Your task to perform on an android device: see tabs open on other devices in the chrome app Image 0: 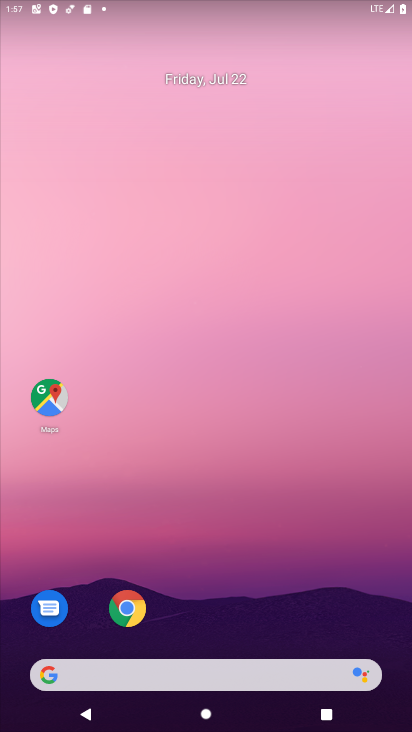
Step 0: click (126, 603)
Your task to perform on an android device: see tabs open on other devices in the chrome app Image 1: 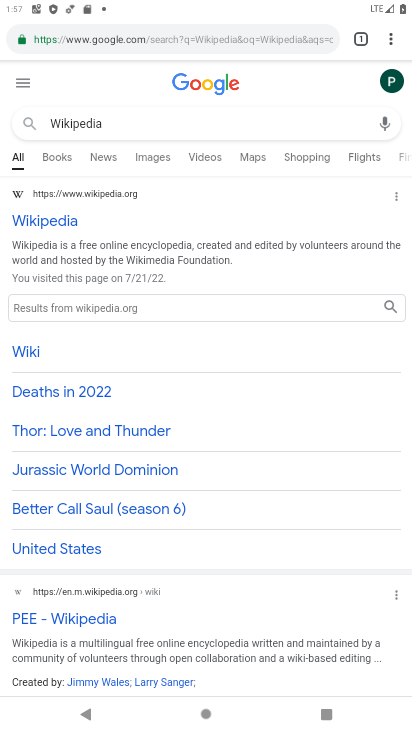
Step 1: click (386, 35)
Your task to perform on an android device: see tabs open on other devices in the chrome app Image 2: 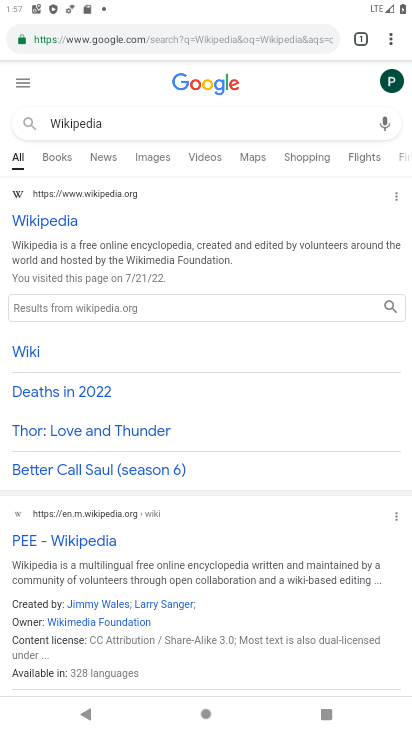
Step 2: click (387, 36)
Your task to perform on an android device: see tabs open on other devices in the chrome app Image 3: 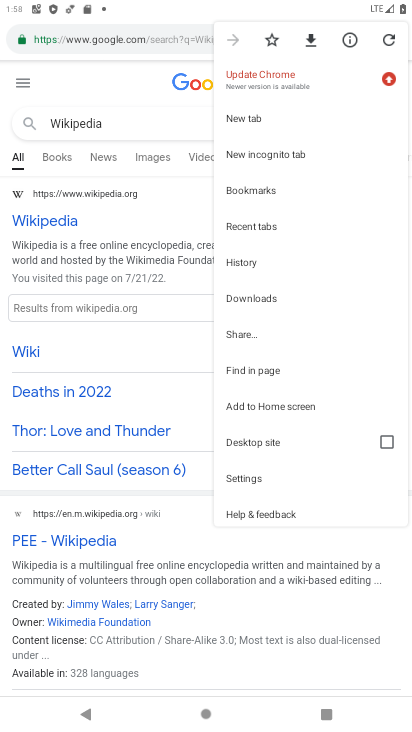
Step 3: click (242, 229)
Your task to perform on an android device: see tabs open on other devices in the chrome app Image 4: 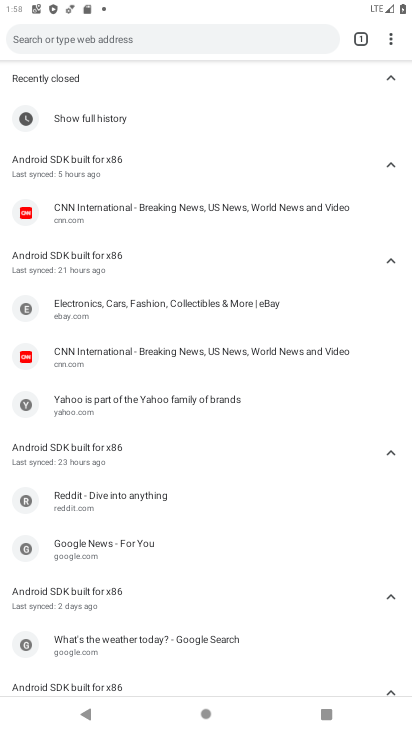
Step 4: task complete